Your task to perform on an android device: turn on improve location accuracy Image 0: 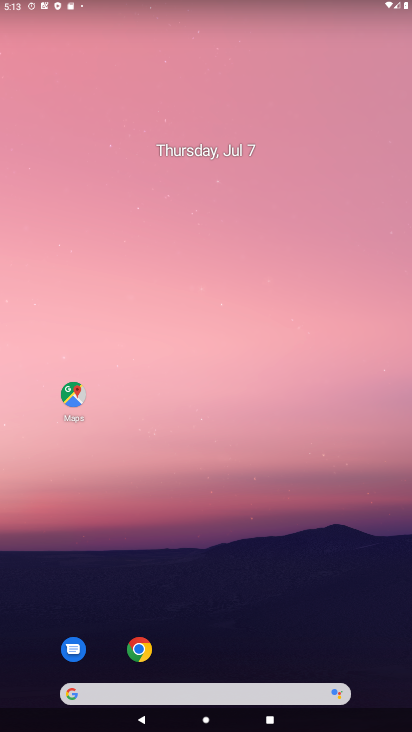
Step 0: click (179, 17)
Your task to perform on an android device: turn on improve location accuracy Image 1: 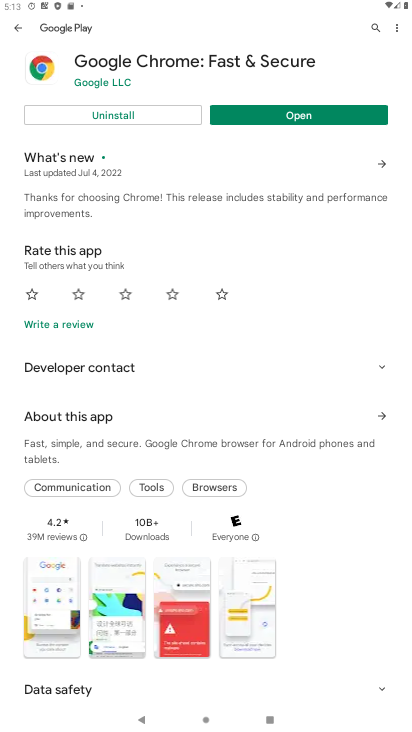
Step 1: press home button
Your task to perform on an android device: turn on improve location accuracy Image 2: 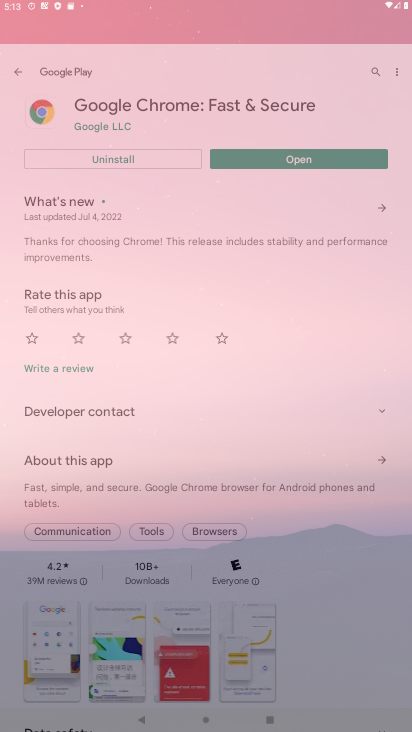
Step 2: drag from (331, 696) to (152, 1)
Your task to perform on an android device: turn on improve location accuracy Image 3: 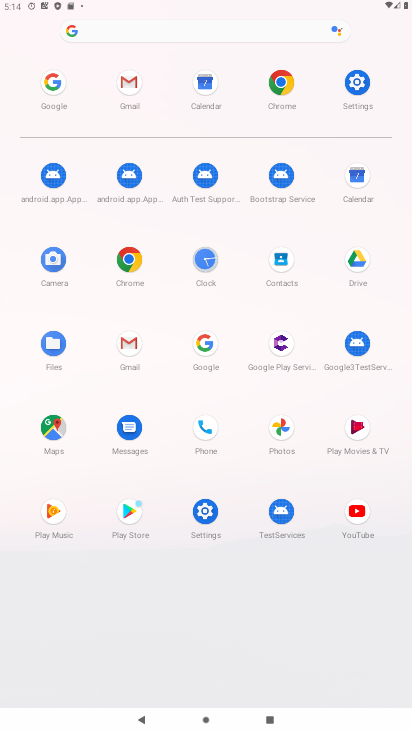
Step 3: click (356, 75)
Your task to perform on an android device: turn on improve location accuracy Image 4: 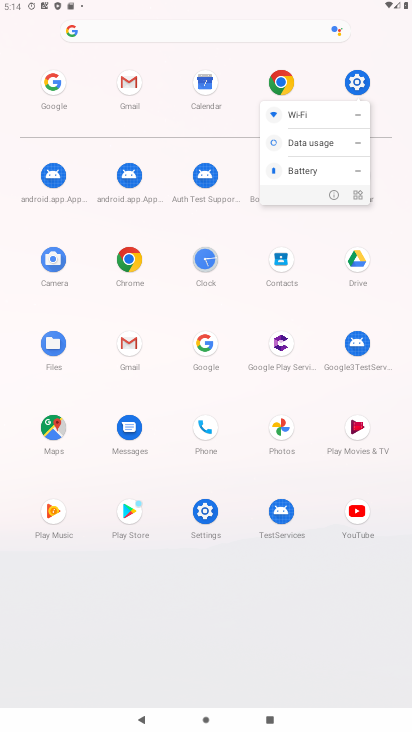
Step 4: click (356, 75)
Your task to perform on an android device: turn on improve location accuracy Image 5: 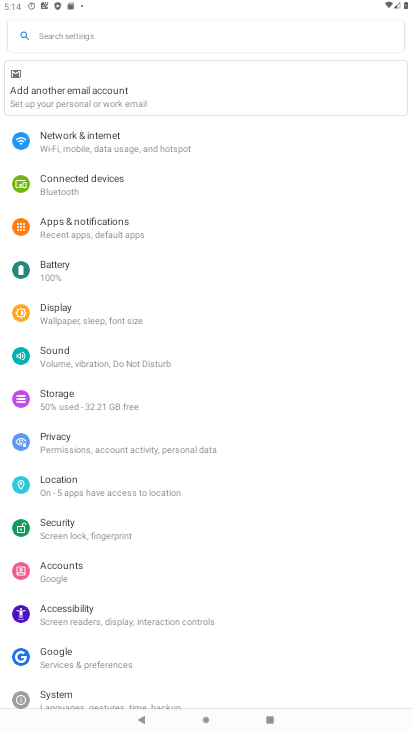
Step 5: click (71, 489)
Your task to perform on an android device: turn on improve location accuracy Image 6: 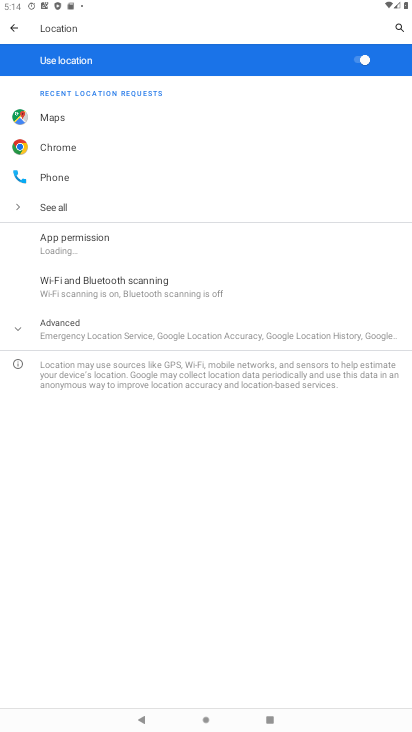
Step 6: click (57, 334)
Your task to perform on an android device: turn on improve location accuracy Image 7: 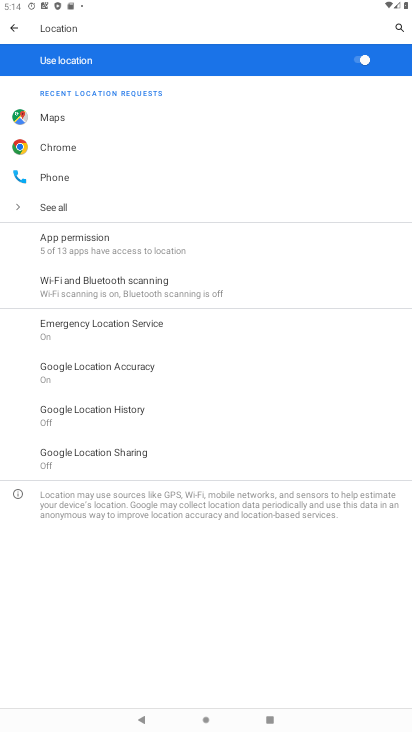
Step 7: click (77, 374)
Your task to perform on an android device: turn on improve location accuracy Image 8: 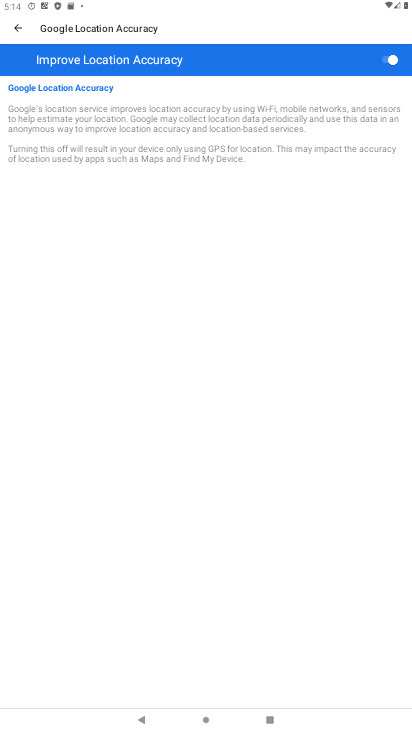
Step 8: task complete